Your task to perform on an android device: toggle notification dots Image 0: 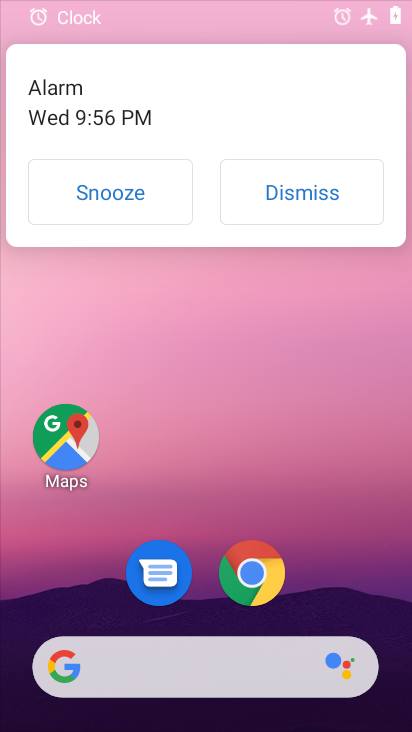
Step 0: click (312, 202)
Your task to perform on an android device: toggle notification dots Image 1: 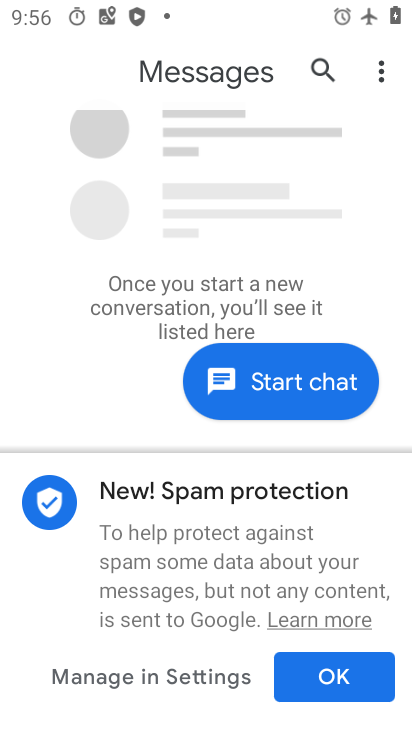
Step 1: press home button
Your task to perform on an android device: toggle notification dots Image 2: 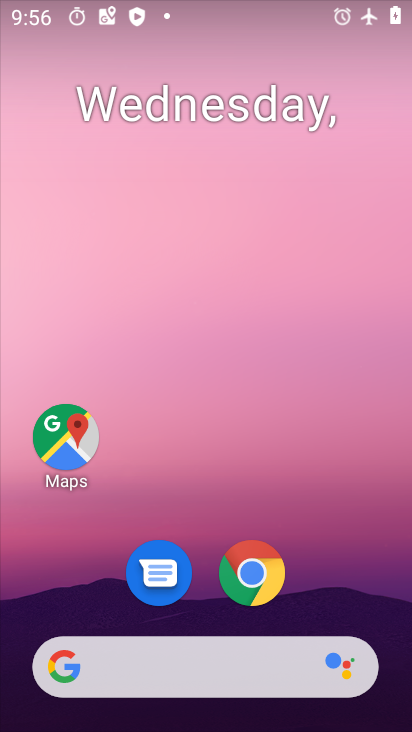
Step 2: drag from (316, 664) to (334, 305)
Your task to perform on an android device: toggle notification dots Image 3: 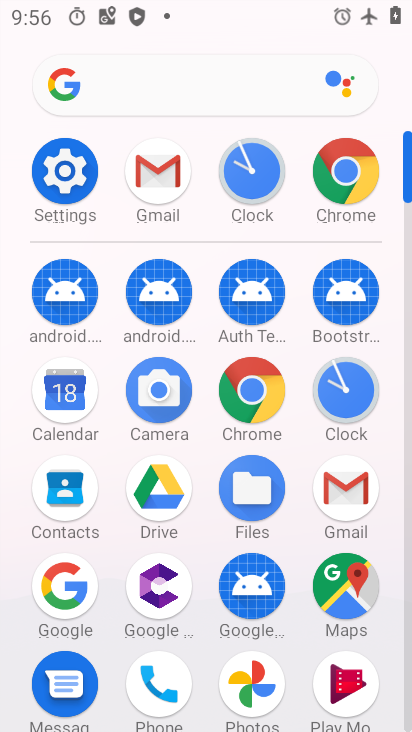
Step 3: click (73, 159)
Your task to perform on an android device: toggle notification dots Image 4: 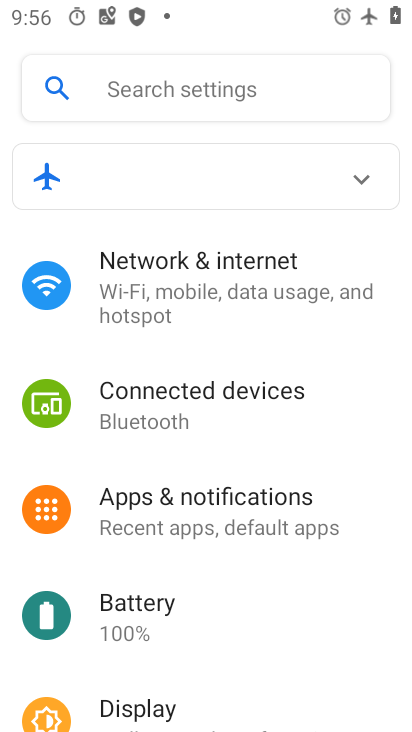
Step 4: click (233, 492)
Your task to perform on an android device: toggle notification dots Image 5: 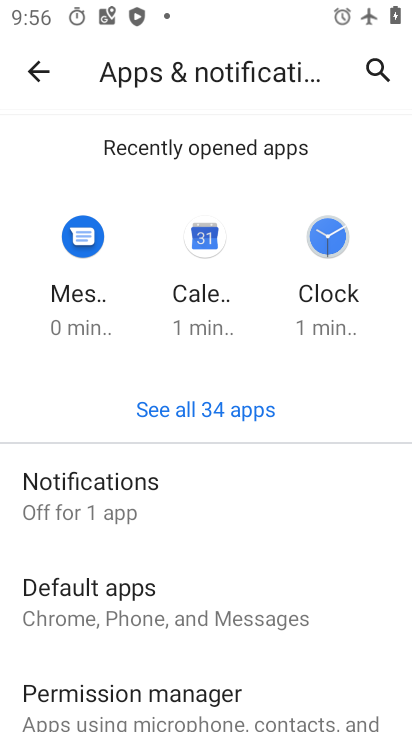
Step 5: click (180, 501)
Your task to perform on an android device: toggle notification dots Image 6: 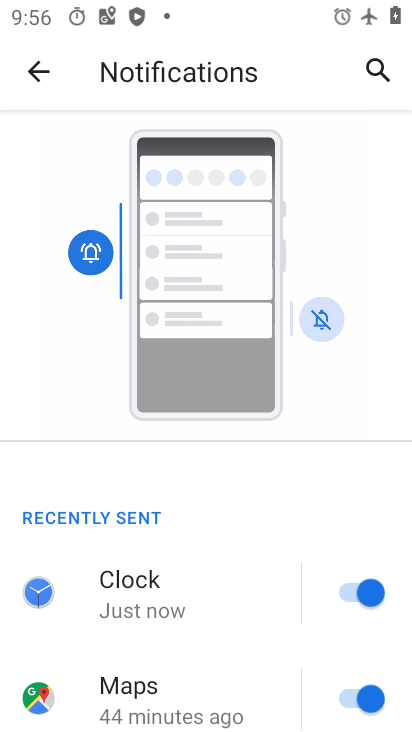
Step 6: drag from (202, 605) to (218, 403)
Your task to perform on an android device: toggle notification dots Image 7: 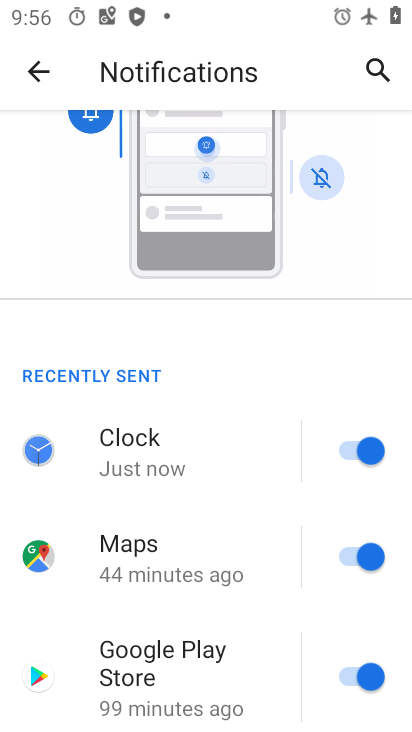
Step 7: drag from (210, 558) to (241, 378)
Your task to perform on an android device: toggle notification dots Image 8: 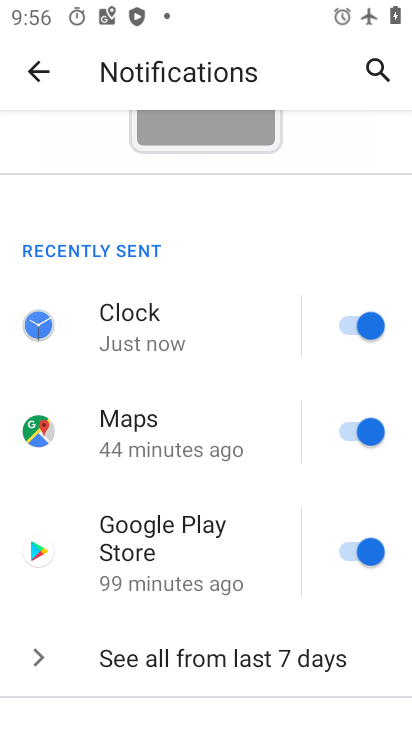
Step 8: drag from (226, 526) to (250, 312)
Your task to perform on an android device: toggle notification dots Image 9: 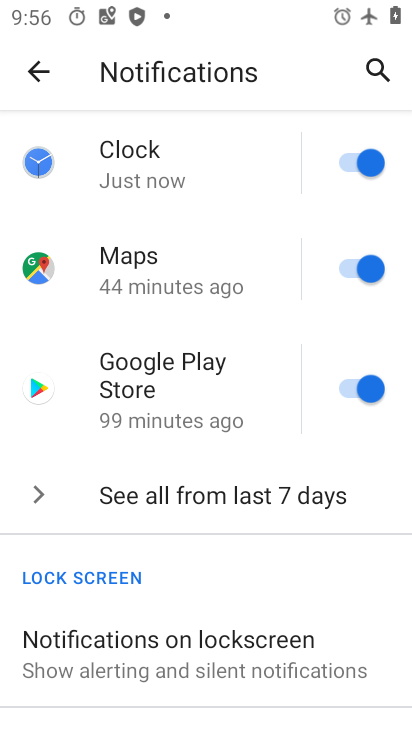
Step 9: drag from (234, 549) to (256, 403)
Your task to perform on an android device: toggle notification dots Image 10: 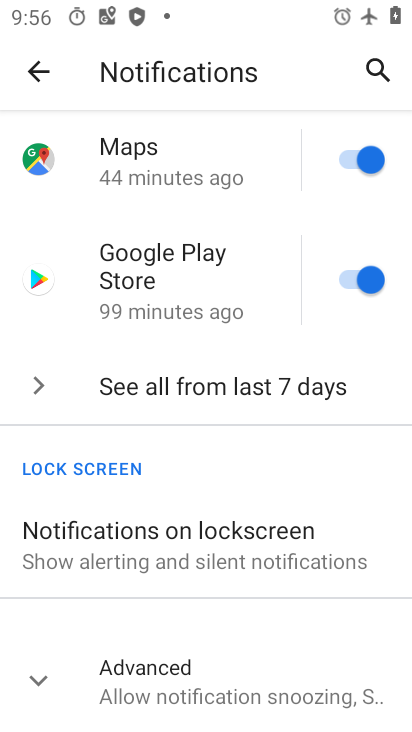
Step 10: drag from (239, 609) to (269, 444)
Your task to perform on an android device: toggle notification dots Image 11: 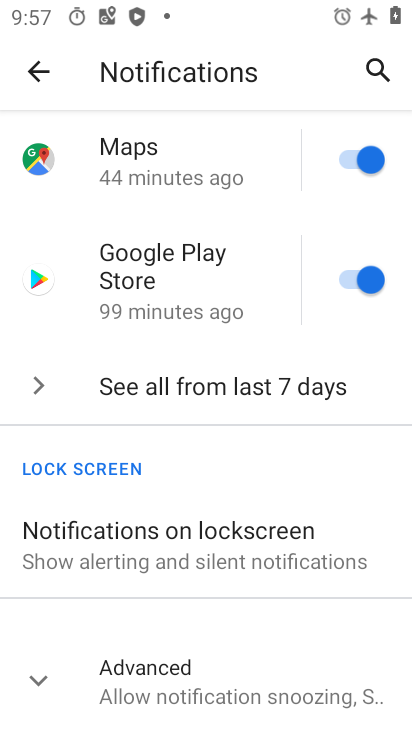
Step 11: click (255, 691)
Your task to perform on an android device: toggle notification dots Image 12: 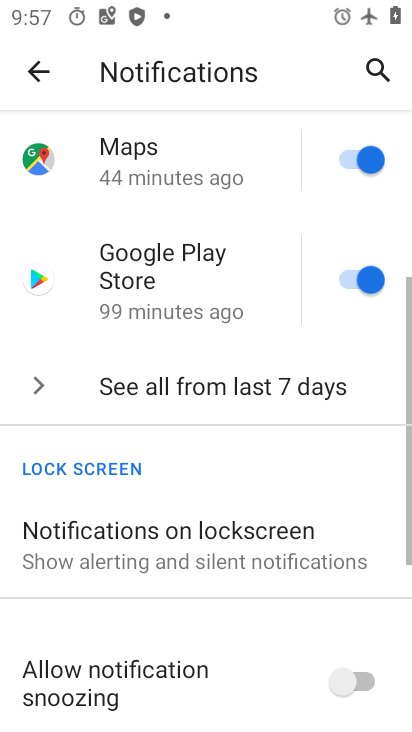
Step 12: drag from (255, 691) to (270, 426)
Your task to perform on an android device: toggle notification dots Image 13: 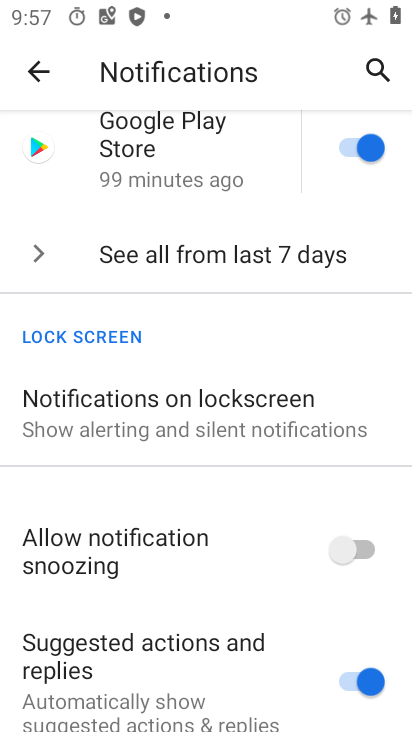
Step 13: drag from (263, 678) to (314, 357)
Your task to perform on an android device: toggle notification dots Image 14: 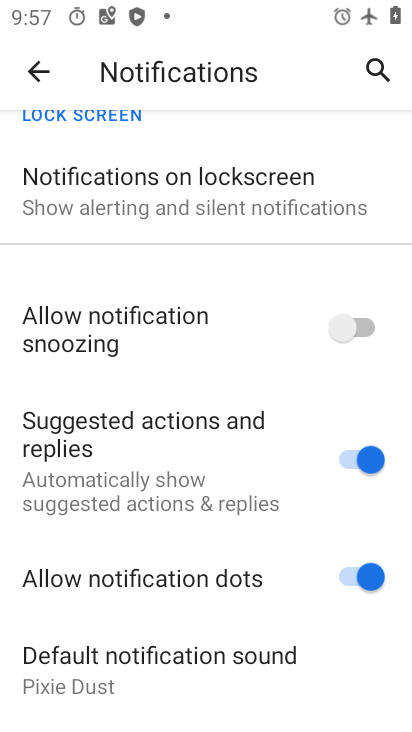
Step 14: click (337, 581)
Your task to perform on an android device: toggle notification dots Image 15: 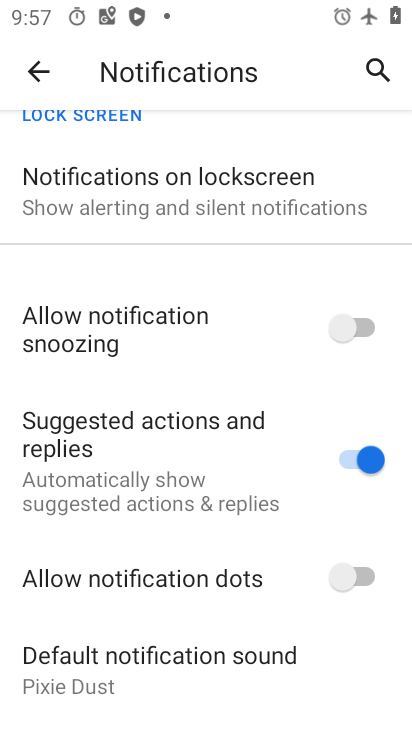
Step 15: task complete